Your task to perform on an android device: Open Yahoo.com Image 0: 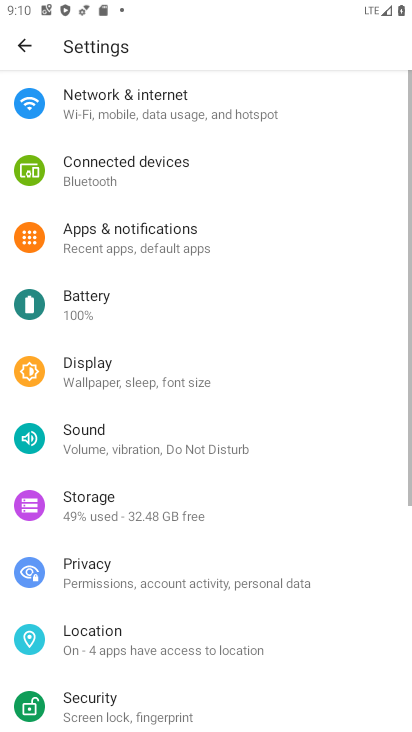
Step 0: press home button
Your task to perform on an android device: Open Yahoo.com Image 1: 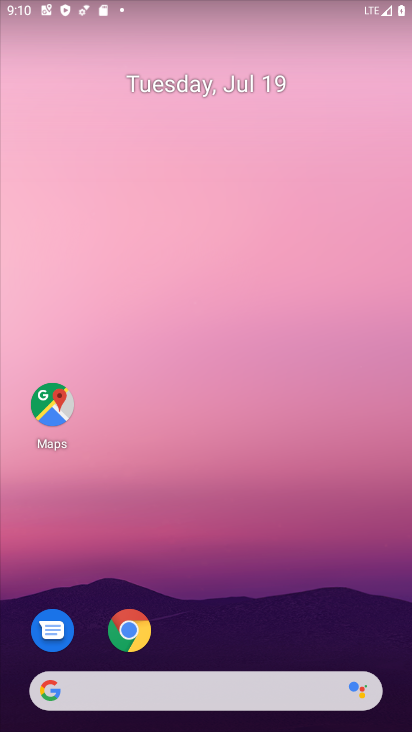
Step 1: click (130, 632)
Your task to perform on an android device: Open Yahoo.com Image 2: 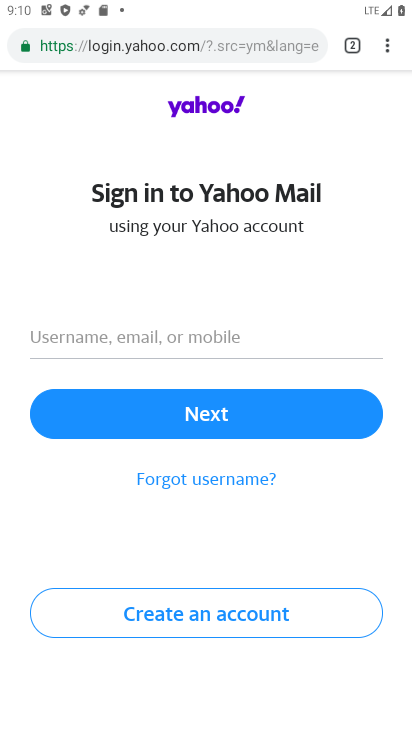
Step 2: click (351, 44)
Your task to perform on an android device: Open Yahoo.com Image 3: 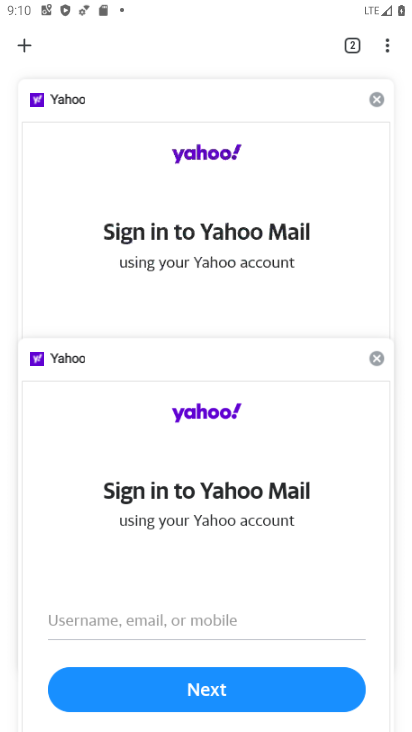
Step 3: click (25, 46)
Your task to perform on an android device: Open Yahoo.com Image 4: 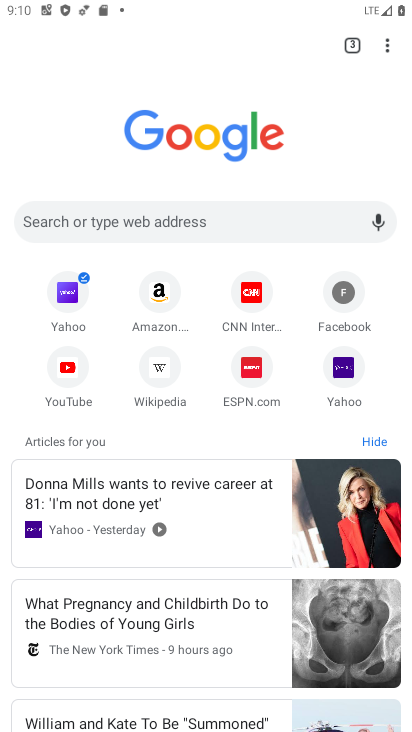
Step 4: click (73, 295)
Your task to perform on an android device: Open Yahoo.com Image 5: 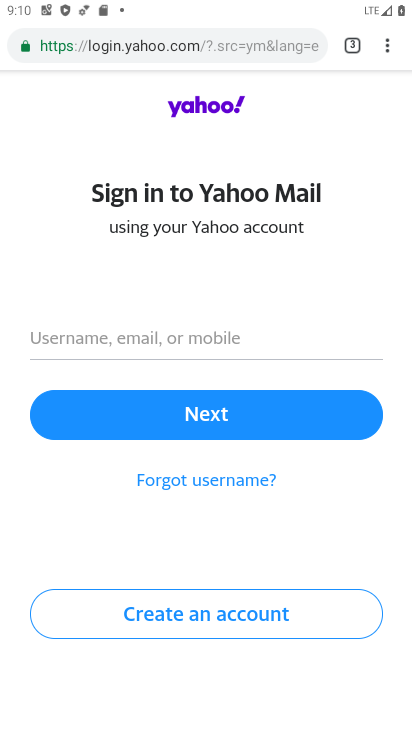
Step 5: task complete